Your task to perform on an android device: Open Google Chrome and open the bookmarks view Image 0: 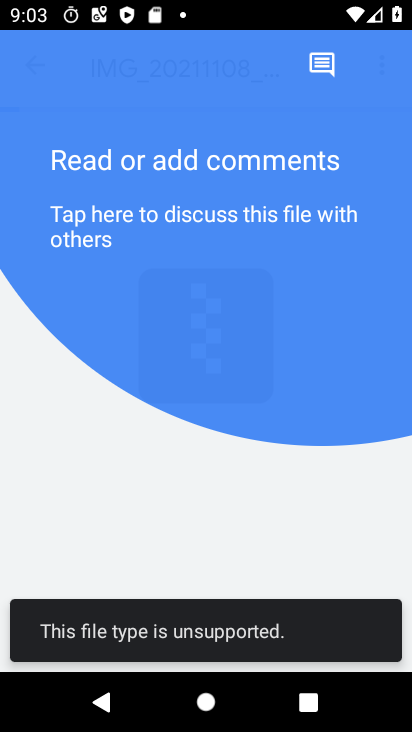
Step 0: press home button
Your task to perform on an android device: Open Google Chrome and open the bookmarks view Image 1: 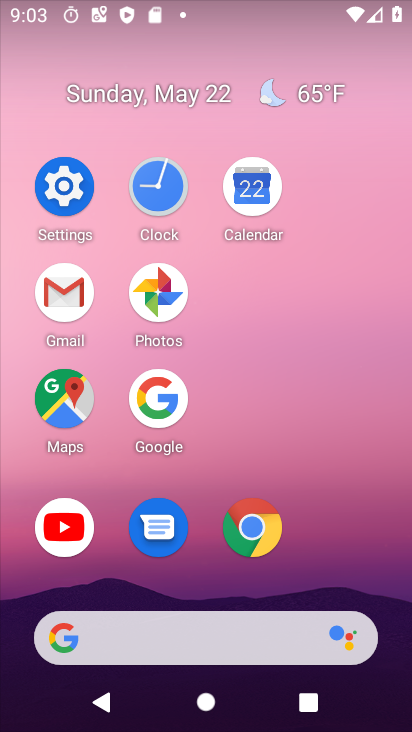
Step 1: click (266, 528)
Your task to perform on an android device: Open Google Chrome and open the bookmarks view Image 2: 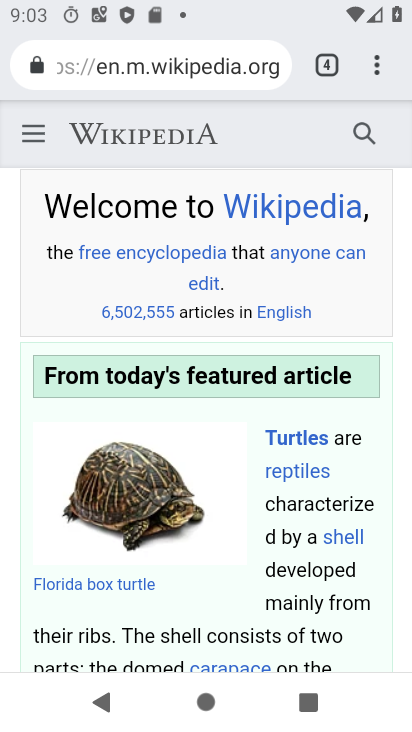
Step 2: click (388, 68)
Your task to perform on an android device: Open Google Chrome and open the bookmarks view Image 3: 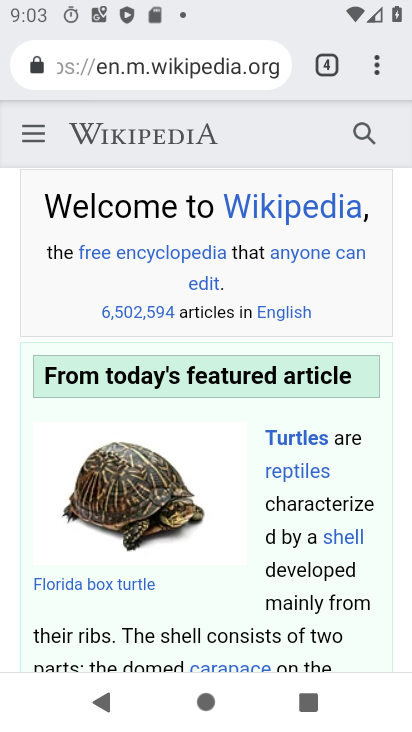
Step 3: click (379, 56)
Your task to perform on an android device: Open Google Chrome and open the bookmarks view Image 4: 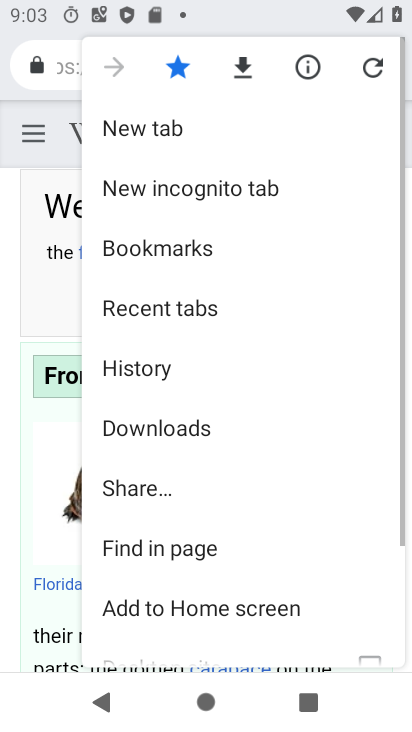
Step 4: click (176, 243)
Your task to perform on an android device: Open Google Chrome and open the bookmarks view Image 5: 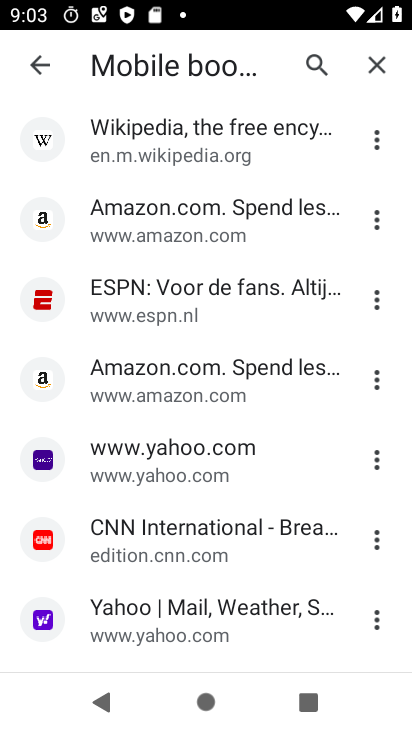
Step 5: task complete